Your task to perform on an android device: Is it going to rain today? Image 0: 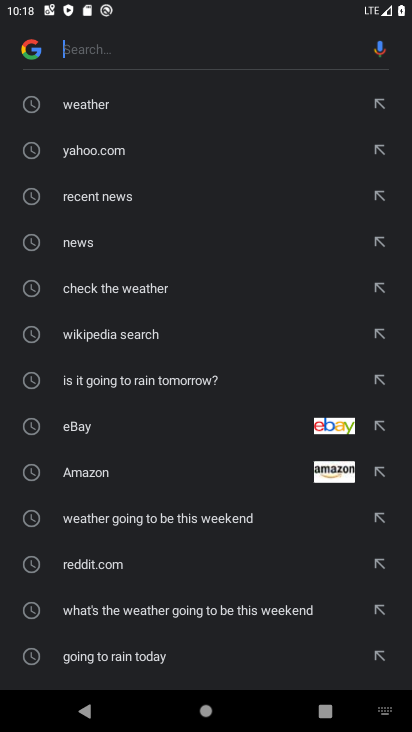
Step 0: press home button
Your task to perform on an android device: Is it going to rain today? Image 1: 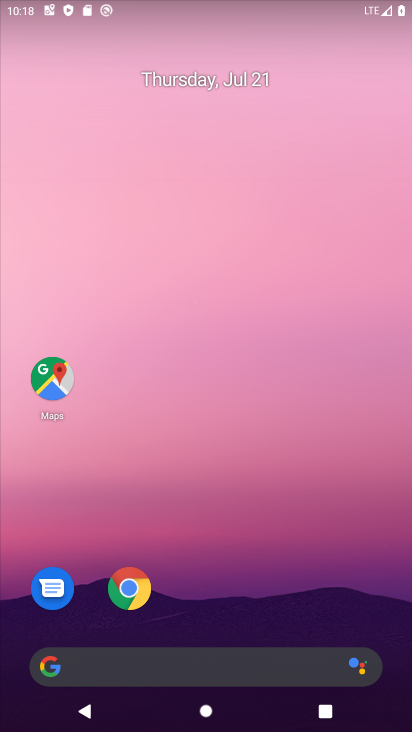
Step 1: drag from (391, 698) to (355, 76)
Your task to perform on an android device: Is it going to rain today? Image 2: 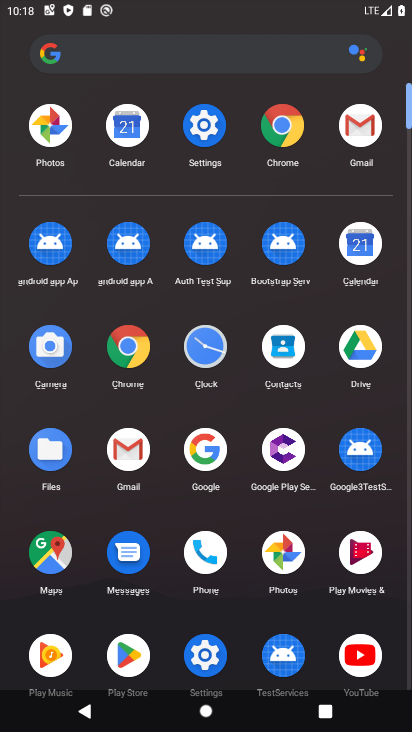
Step 2: click (206, 445)
Your task to perform on an android device: Is it going to rain today? Image 3: 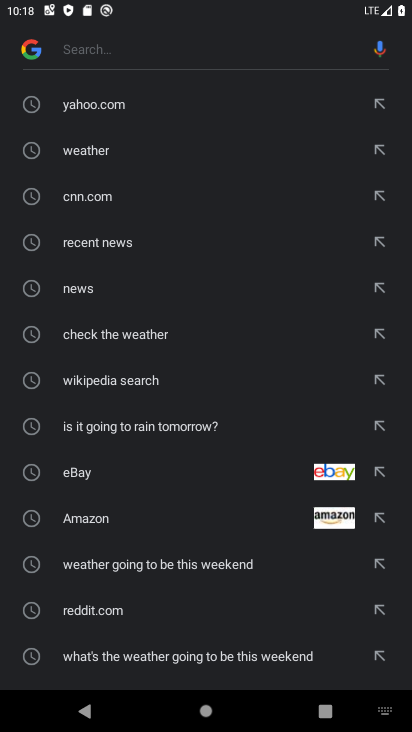
Step 3: click (89, 151)
Your task to perform on an android device: Is it going to rain today? Image 4: 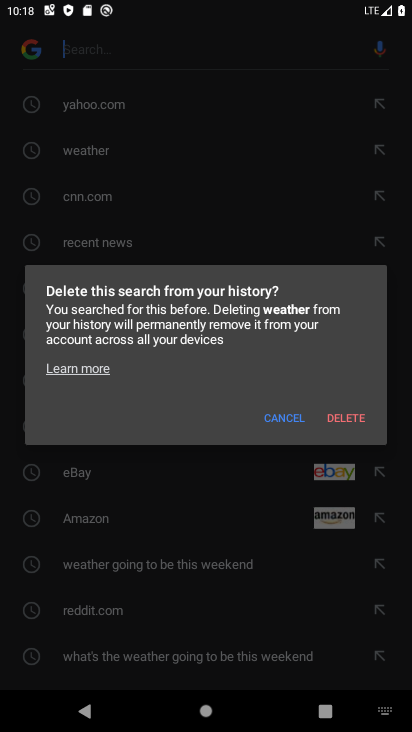
Step 4: click (333, 425)
Your task to perform on an android device: Is it going to rain today? Image 5: 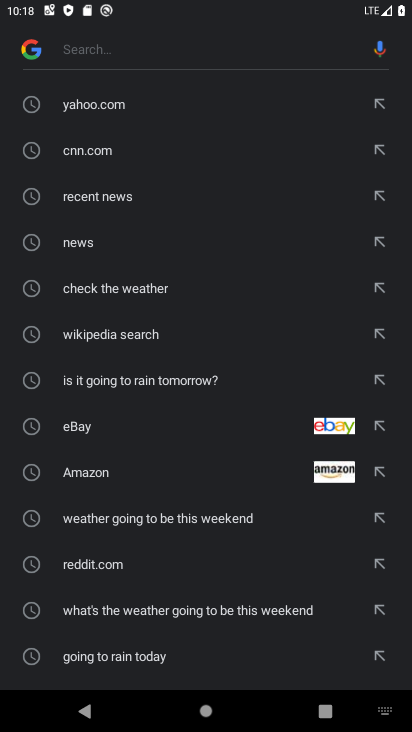
Step 5: task complete